Your task to perform on an android device: Open Google Maps and go to "Timeline" Image 0: 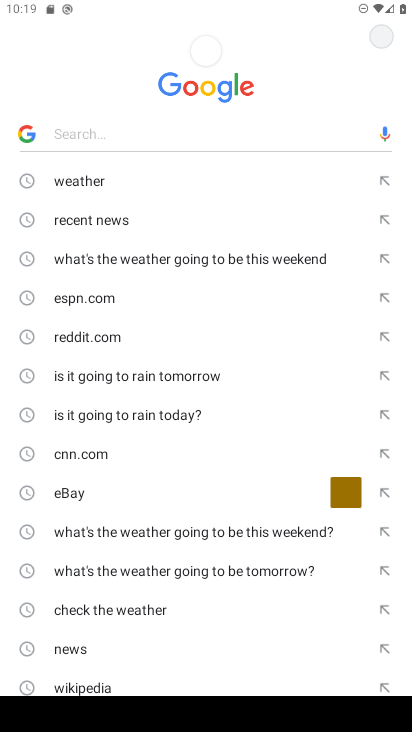
Step 0: press home button
Your task to perform on an android device: Open Google Maps and go to "Timeline" Image 1: 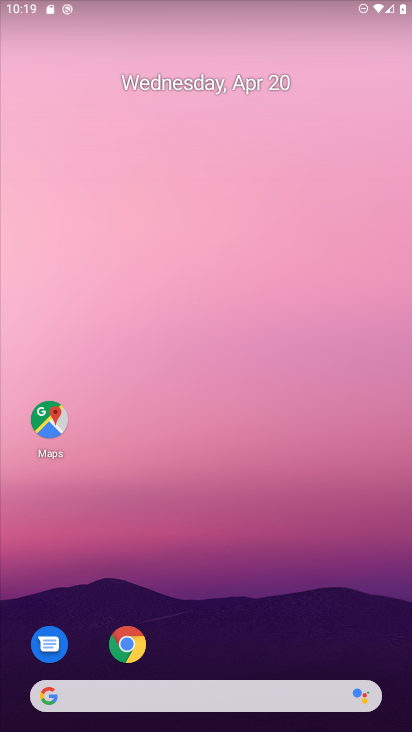
Step 1: drag from (301, 529) to (180, 44)
Your task to perform on an android device: Open Google Maps and go to "Timeline" Image 2: 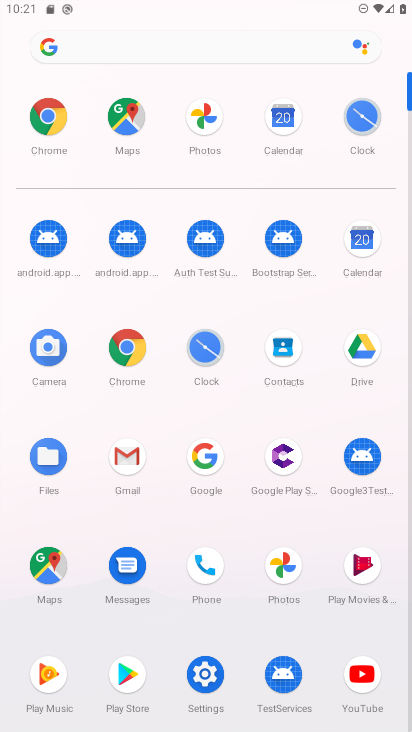
Step 2: click (36, 556)
Your task to perform on an android device: Open Google Maps and go to "Timeline" Image 3: 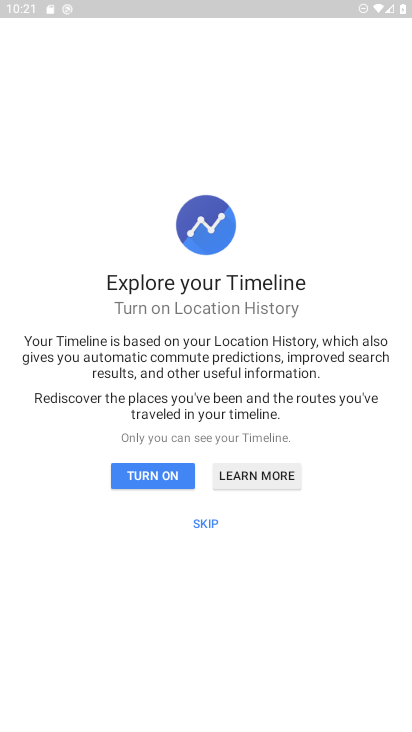
Step 3: task complete